Your task to perform on an android device: change your default location settings in chrome Image 0: 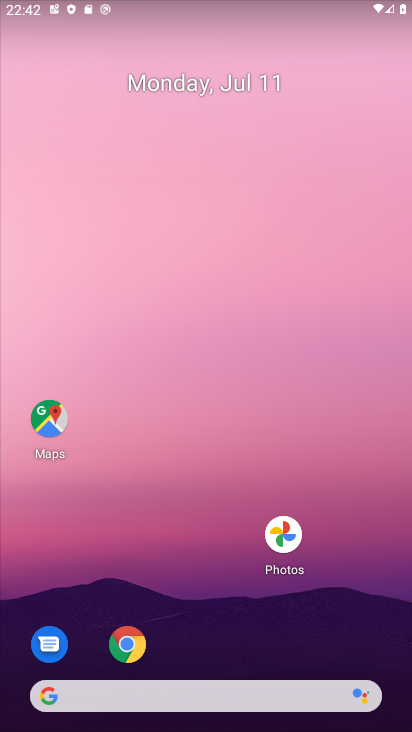
Step 0: press back button
Your task to perform on an android device: change your default location settings in chrome Image 1: 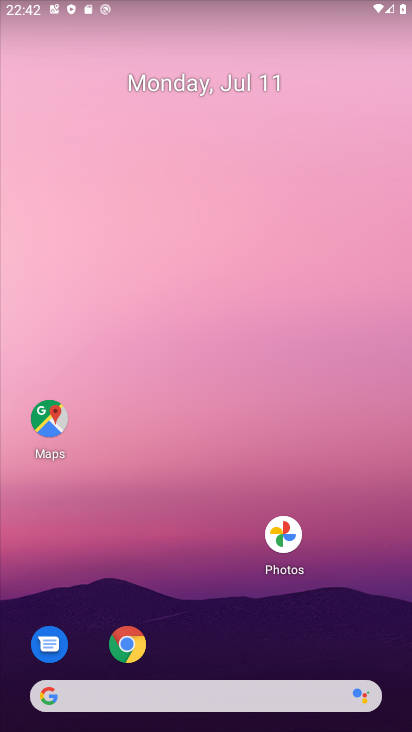
Step 1: drag from (221, 509) to (180, 192)
Your task to perform on an android device: change your default location settings in chrome Image 2: 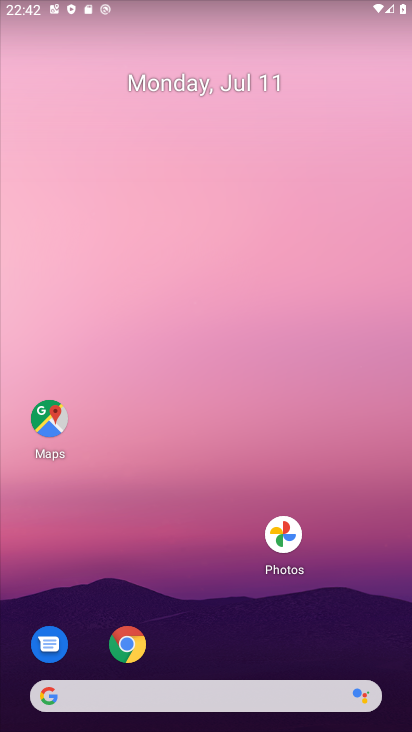
Step 2: drag from (170, 343) to (149, 195)
Your task to perform on an android device: change your default location settings in chrome Image 3: 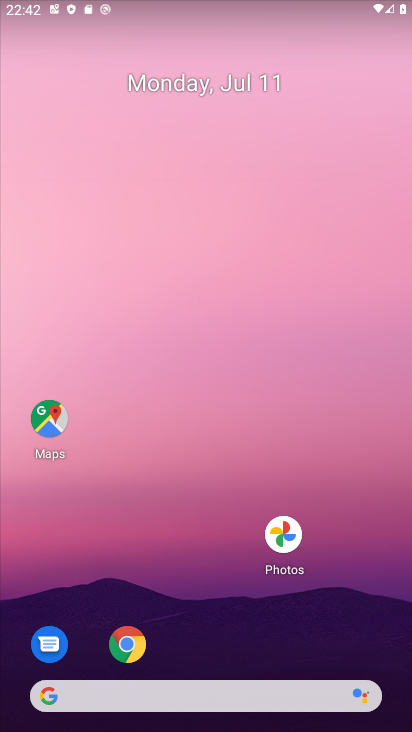
Step 3: drag from (265, 576) to (247, 10)
Your task to perform on an android device: change your default location settings in chrome Image 4: 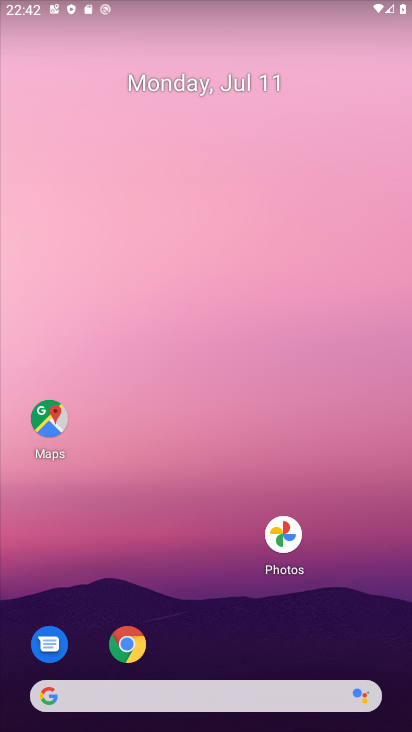
Step 4: drag from (150, 380) to (111, 68)
Your task to perform on an android device: change your default location settings in chrome Image 5: 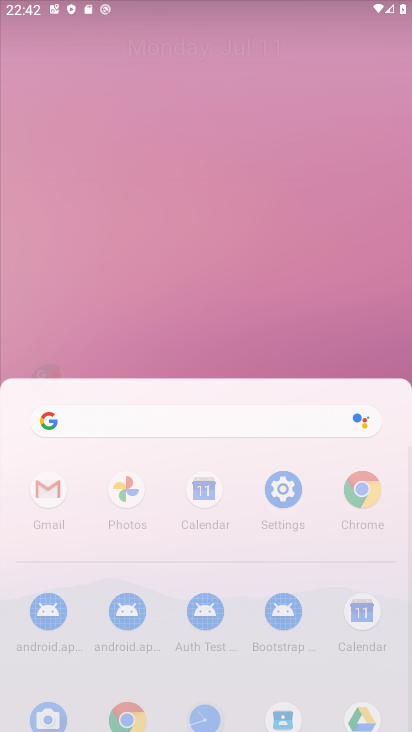
Step 5: drag from (252, 531) to (234, 34)
Your task to perform on an android device: change your default location settings in chrome Image 6: 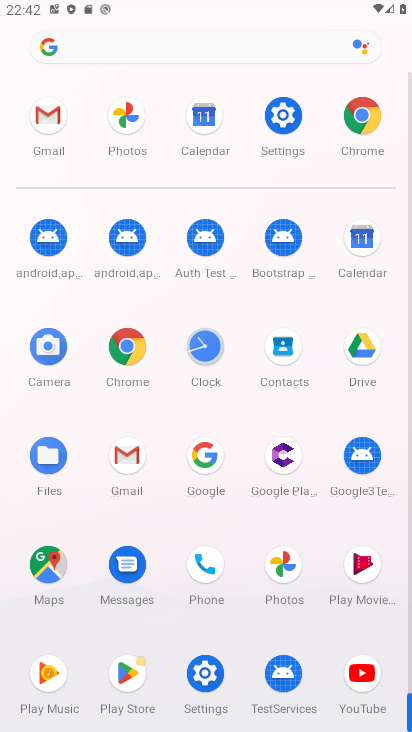
Step 6: drag from (253, 267) to (243, 123)
Your task to perform on an android device: change your default location settings in chrome Image 7: 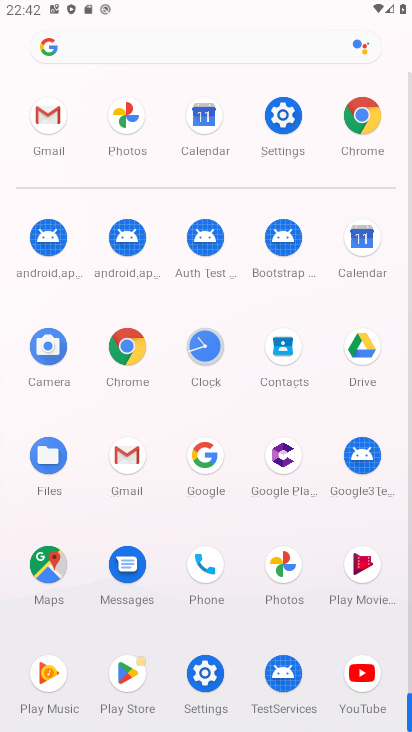
Step 7: drag from (204, 528) to (185, 151)
Your task to perform on an android device: change your default location settings in chrome Image 8: 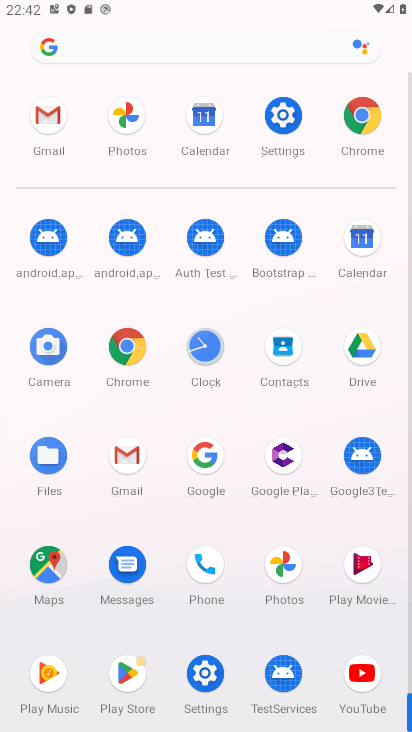
Step 8: click (368, 118)
Your task to perform on an android device: change your default location settings in chrome Image 9: 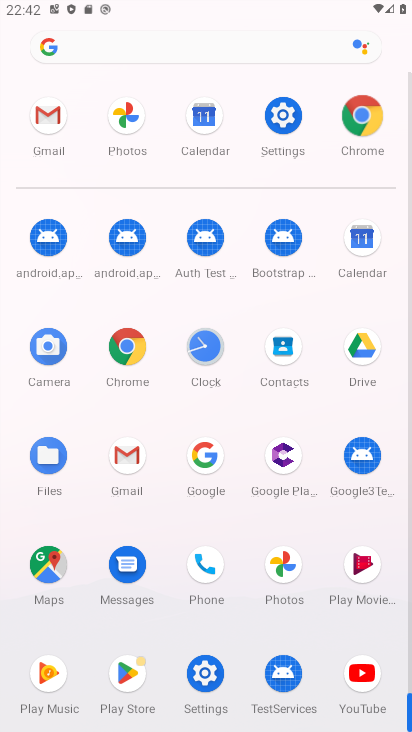
Step 9: click (368, 118)
Your task to perform on an android device: change your default location settings in chrome Image 10: 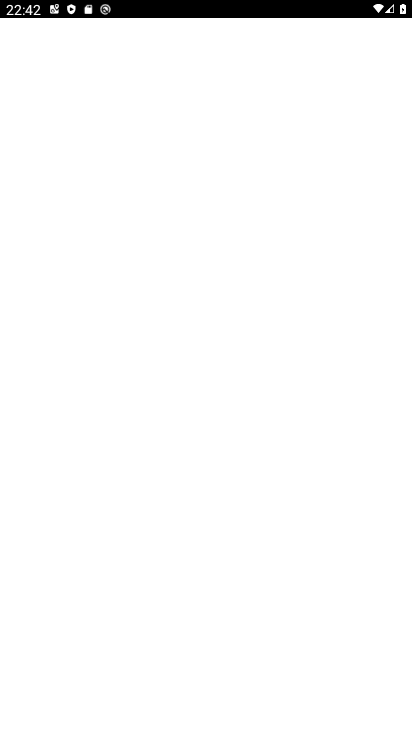
Step 10: click (372, 118)
Your task to perform on an android device: change your default location settings in chrome Image 11: 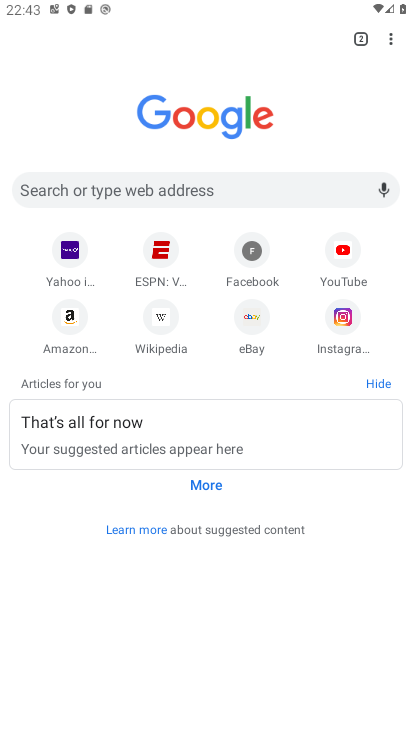
Step 11: click (397, 33)
Your task to perform on an android device: change your default location settings in chrome Image 12: 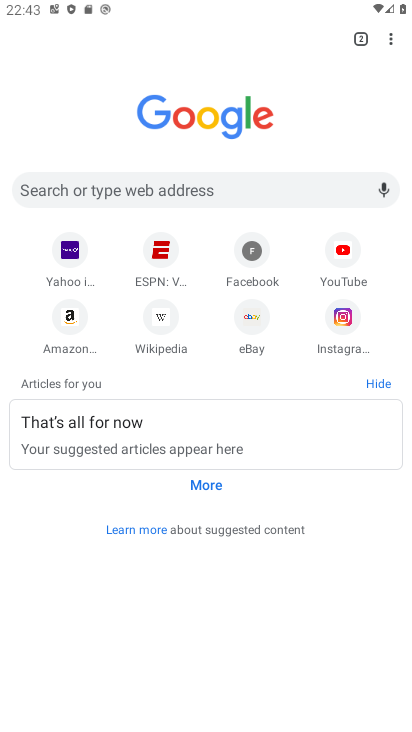
Step 12: click (384, 40)
Your task to perform on an android device: change your default location settings in chrome Image 13: 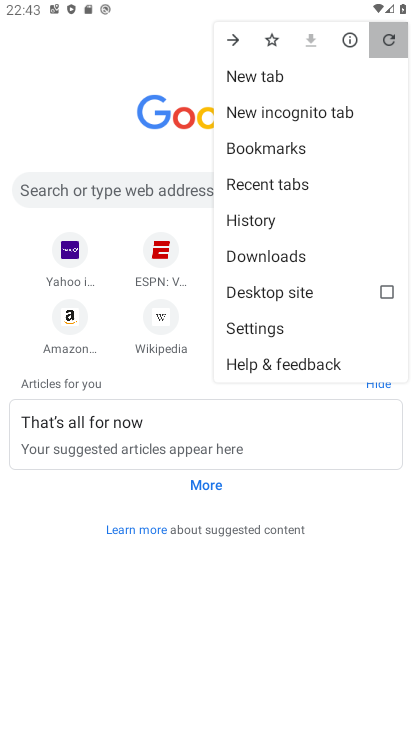
Step 13: click (384, 40)
Your task to perform on an android device: change your default location settings in chrome Image 14: 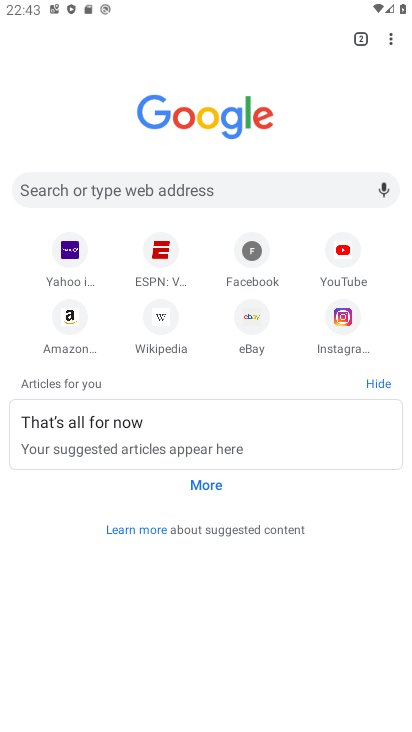
Step 14: click (389, 43)
Your task to perform on an android device: change your default location settings in chrome Image 15: 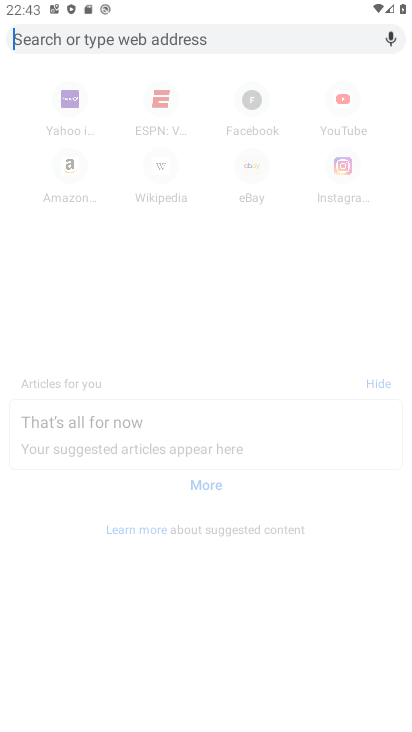
Step 15: click (389, 43)
Your task to perform on an android device: change your default location settings in chrome Image 16: 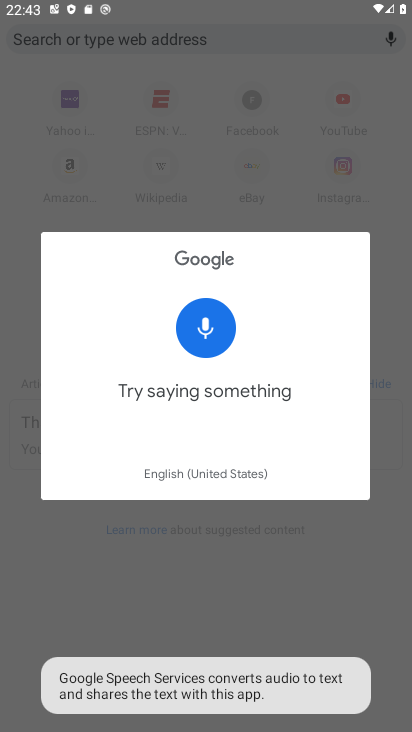
Step 16: press back button
Your task to perform on an android device: change your default location settings in chrome Image 17: 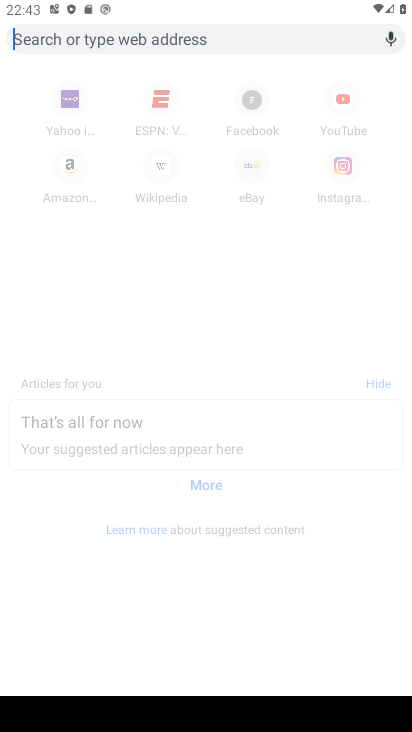
Step 17: drag from (307, 615) to (275, 141)
Your task to perform on an android device: change your default location settings in chrome Image 18: 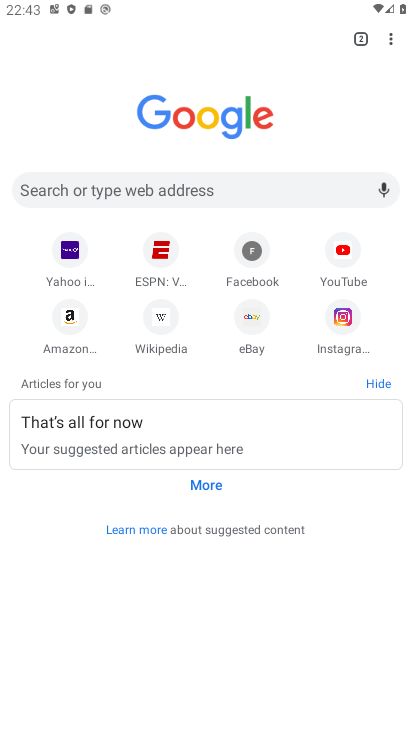
Step 18: click (384, 39)
Your task to perform on an android device: change your default location settings in chrome Image 19: 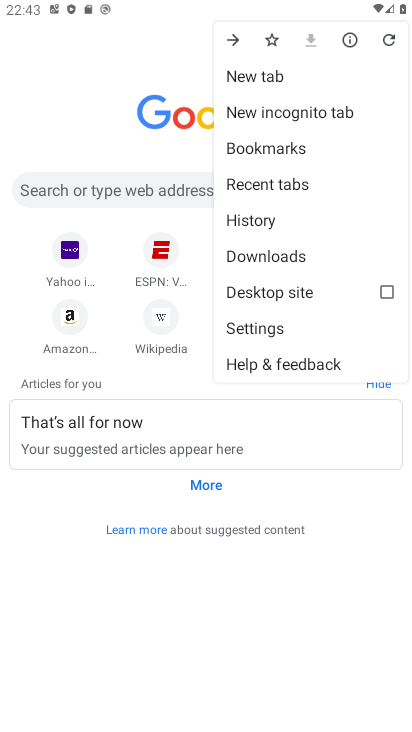
Step 19: click (389, 43)
Your task to perform on an android device: change your default location settings in chrome Image 20: 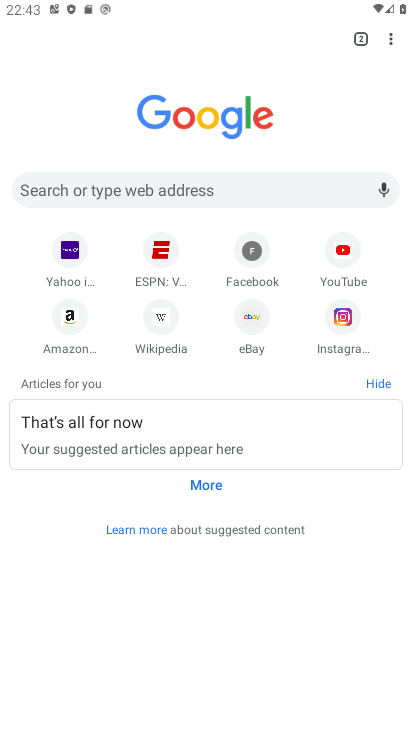
Step 20: drag from (389, 43) to (262, 335)
Your task to perform on an android device: change your default location settings in chrome Image 21: 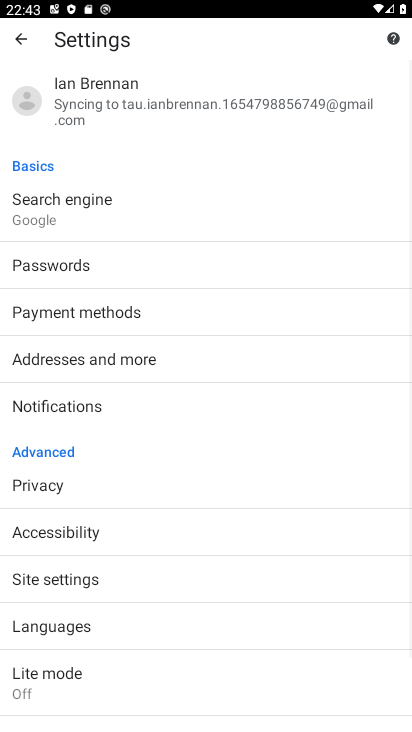
Step 21: drag from (89, 579) to (97, 318)
Your task to perform on an android device: change your default location settings in chrome Image 22: 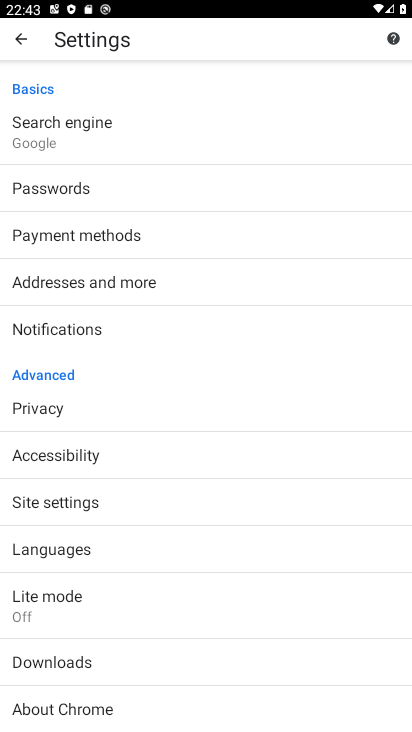
Step 22: click (37, 499)
Your task to perform on an android device: change your default location settings in chrome Image 23: 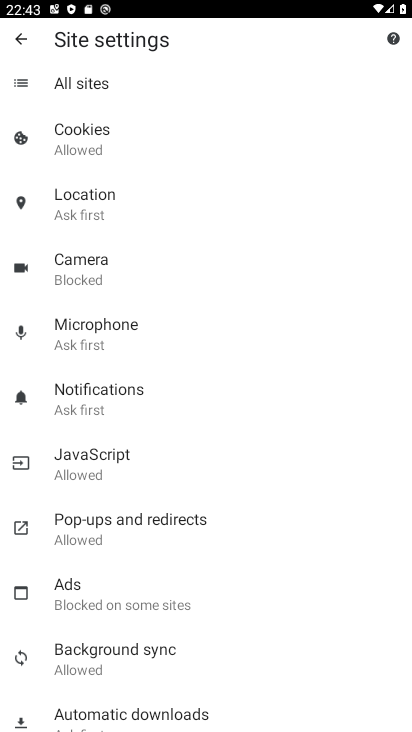
Step 23: click (81, 195)
Your task to perform on an android device: change your default location settings in chrome Image 24: 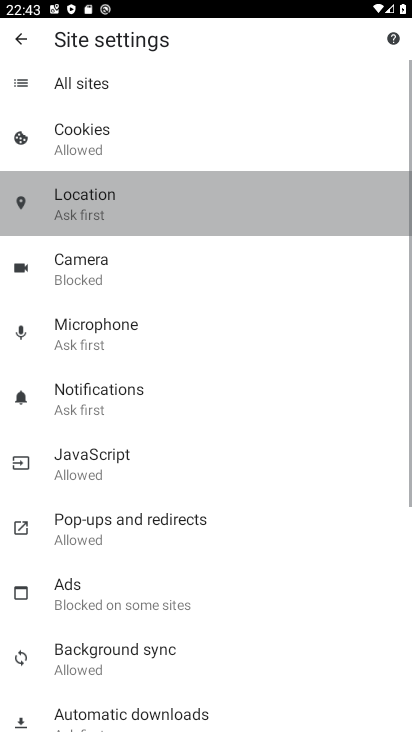
Step 24: click (81, 195)
Your task to perform on an android device: change your default location settings in chrome Image 25: 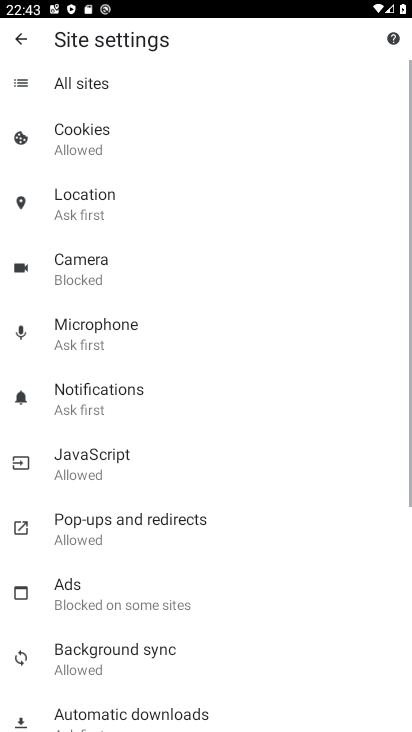
Step 25: click (81, 195)
Your task to perform on an android device: change your default location settings in chrome Image 26: 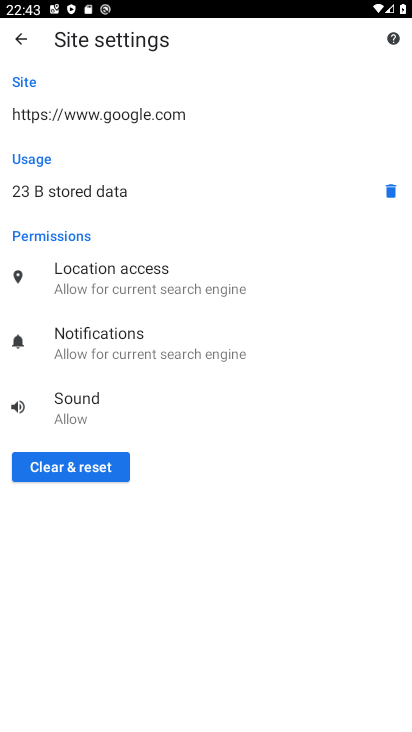
Step 26: click (93, 276)
Your task to perform on an android device: change your default location settings in chrome Image 27: 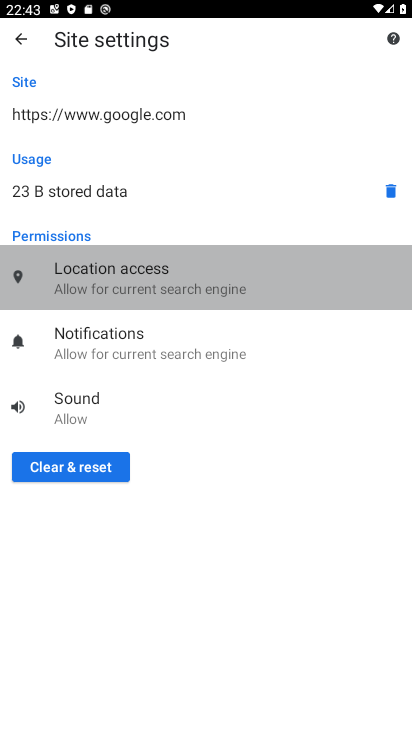
Step 27: click (93, 276)
Your task to perform on an android device: change your default location settings in chrome Image 28: 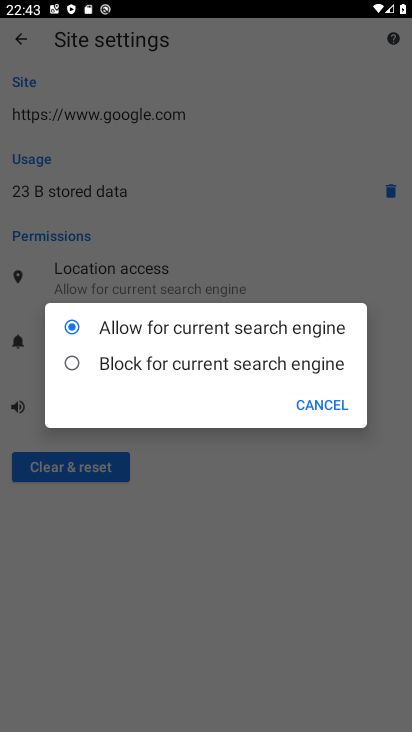
Step 28: click (73, 356)
Your task to perform on an android device: change your default location settings in chrome Image 29: 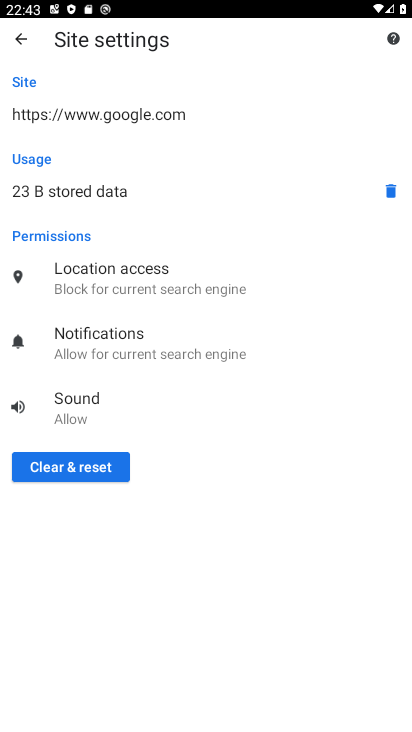
Step 29: task complete